Your task to perform on an android device: Open Google Maps and go to "Timeline" Image 0: 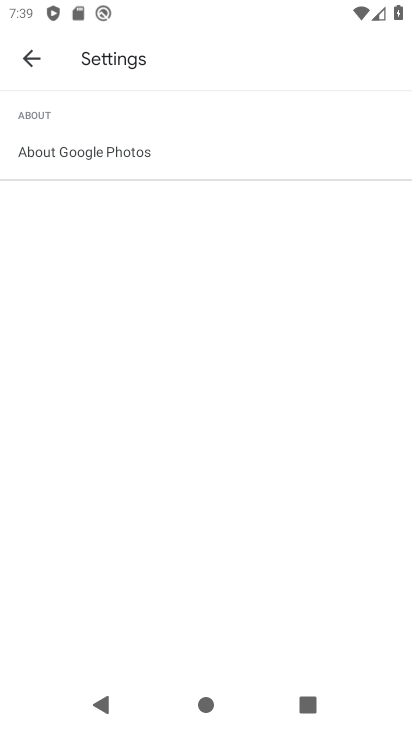
Step 0: press home button
Your task to perform on an android device: Open Google Maps and go to "Timeline" Image 1: 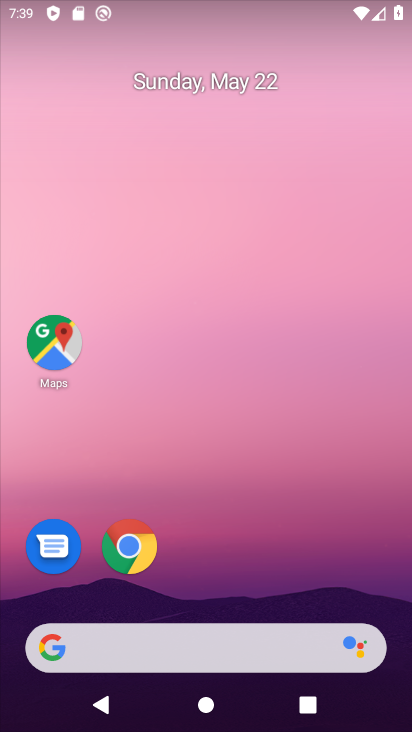
Step 1: click (63, 346)
Your task to perform on an android device: Open Google Maps and go to "Timeline" Image 2: 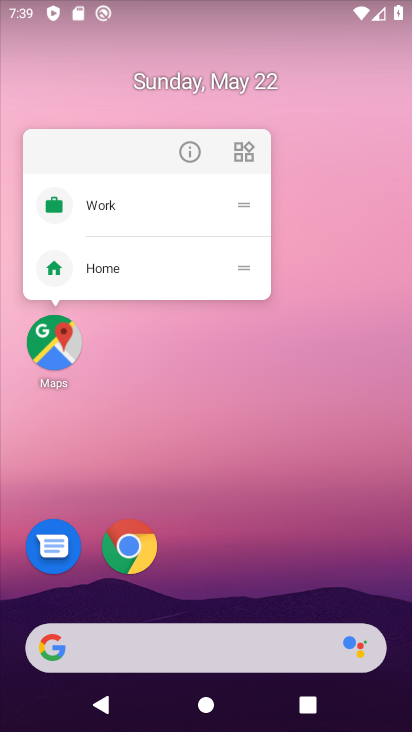
Step 2: click (70, 352)
Your task to perform on an android device: Open Google Maps and go to "Timeline" Image 3: 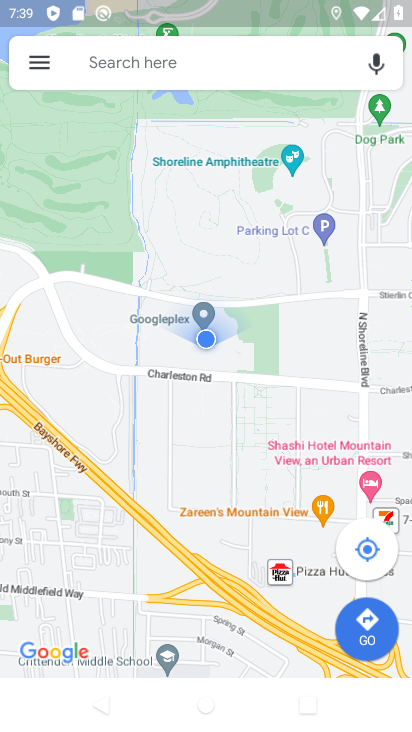
Step 3: click (34, 63)
Your task to perform on an android device: Open Google Maps and go to "Timeline" Image 4: 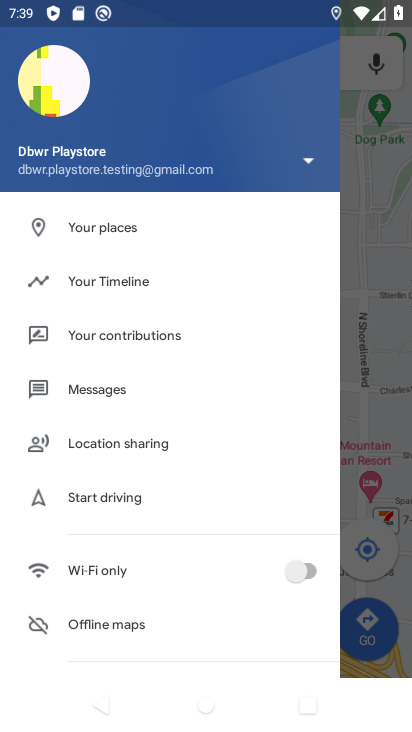
Step 4: click (107, 280)
Your task to perform on an android device: Open Google Maps and go to "Timeline" Image 5: 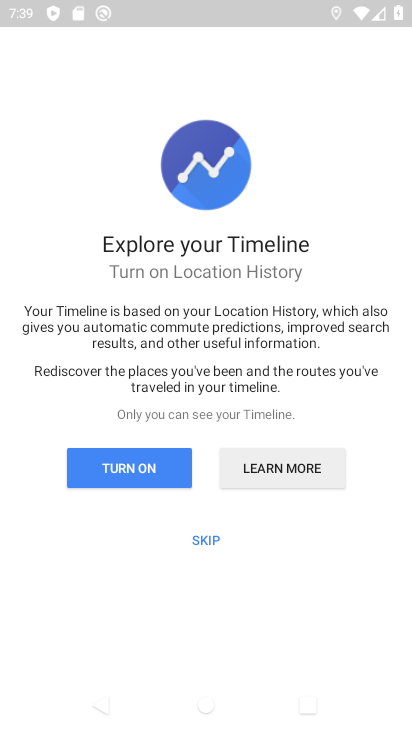
Step 5: click (155, 473)
Your task to perform on an android device: Open Google Maps and go to "Timeline" Image 6: 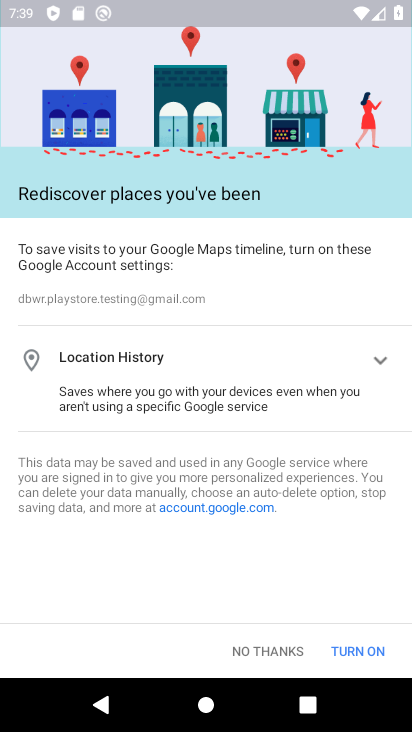
Step 6: click (253, 652)
Your task to perform on an android device: Open Google Maps and go to "Timeline" Image 7: 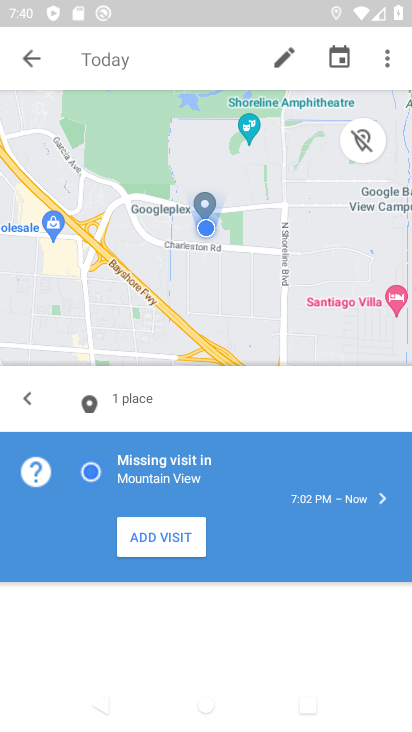
Step 7: task complete